Your task to perform on an android device: Open the map Image 0: 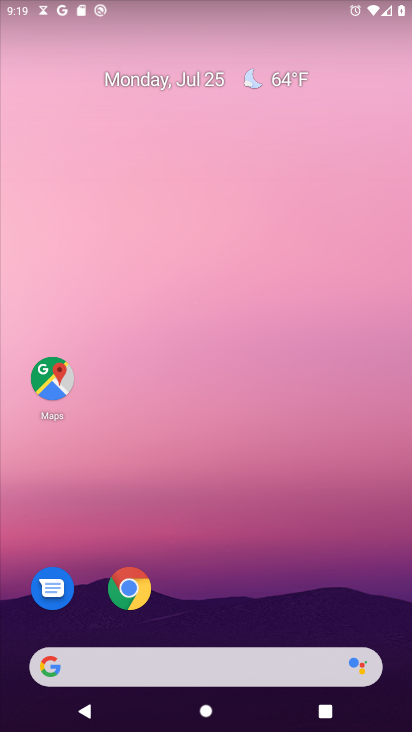
Step 0: click (43, 377)
Your task to perform on an android device: Open the map Image 1: 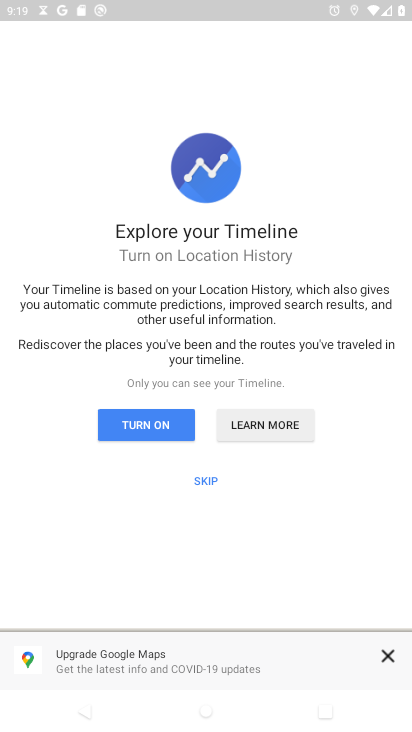
Step 1: task complete